Your task to perform on an android device: turn smart compose on in the gmail app Image 0: 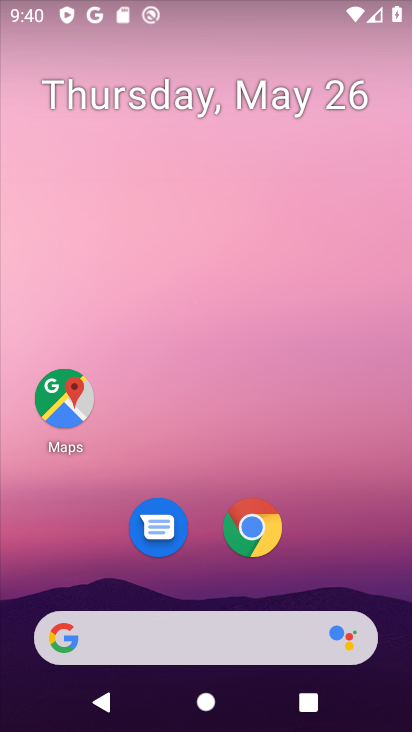
Step 0: drag from (352, 566) to (378, 82)
Your task to perform on an android device: turn smart compose on in the gmail app Image 1: 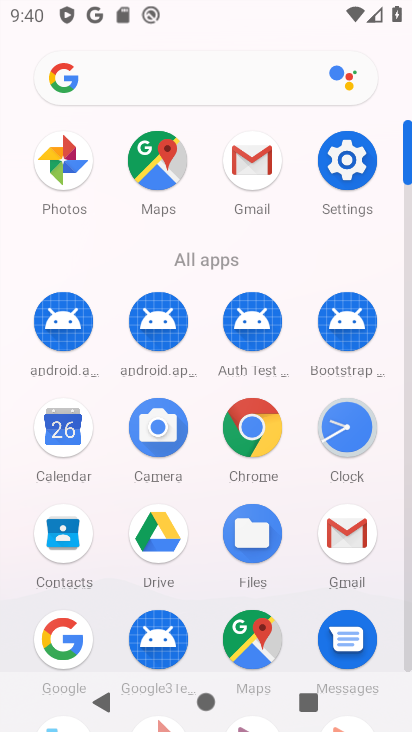
Step 1: click (238, 152)
Your task to perform on an android device: turn smart compose on in the gmail app Image 2: 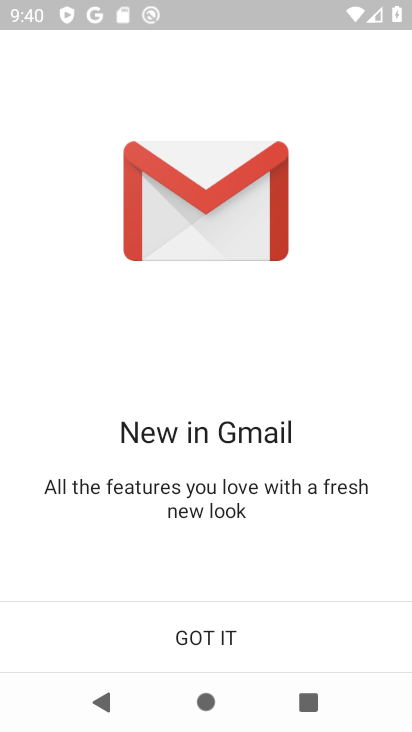
Step 2: click (237, 154)
Your task to perform on an android device: turn smart compose on in the gmail app Image 3: 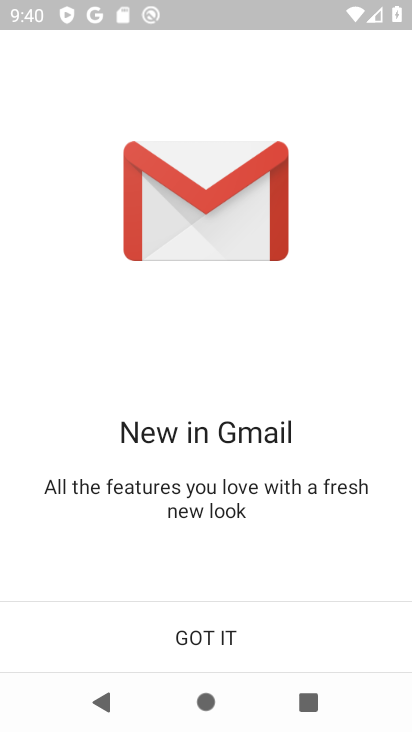
Step 3: click (263, 621)
Your task to perform on an android device: turn smart compose on in the gmail app Image 4: 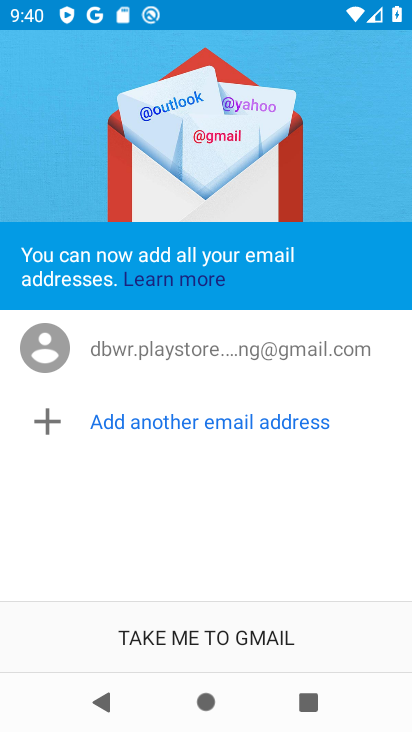
Step 4: click (263, 621)
Your task to perform on an android device: turn smart compose on in the gmail app Image 5: 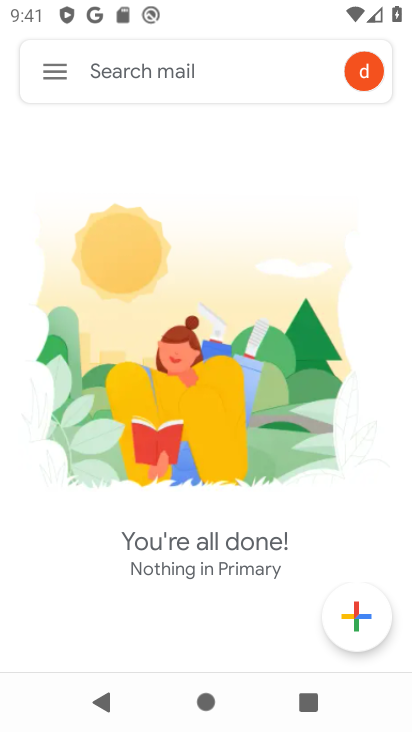
Step 5: click (258, 605)
Your task to perform on an android device: turn smart compose on in the gmail app Image 6: 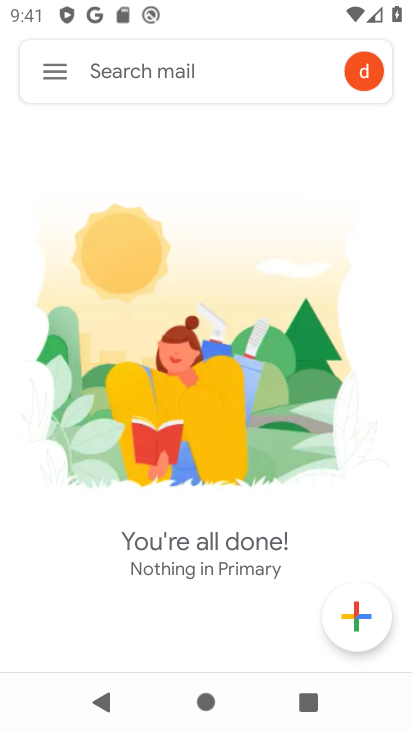
Step 6: drag from (258, 605) to (253, 420)
Your task to perform on an android device: turn smart compose on in the gmail app Image 7: 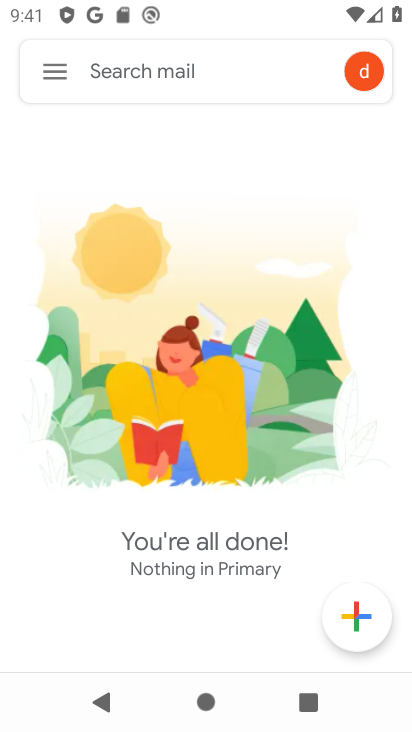
Step 7: click (55, 83)
Your task to perform on an android device: turn smart compose on in the gmail app Image 8: 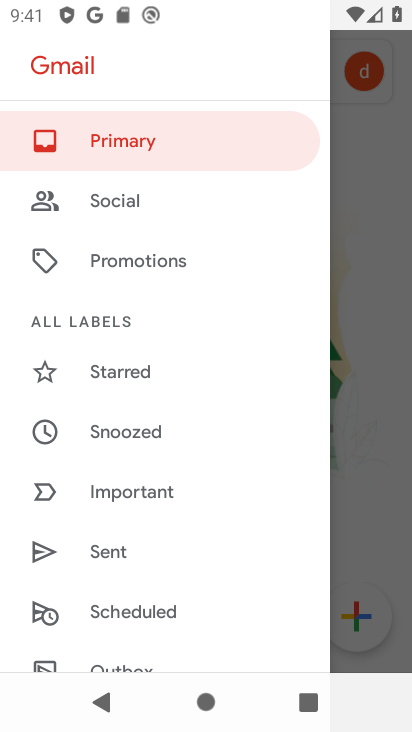
Step 8: drag from (196, 630) to (249, 133)
Your task to perform on an android device: turn smart compose on in the gmail app Image 9: 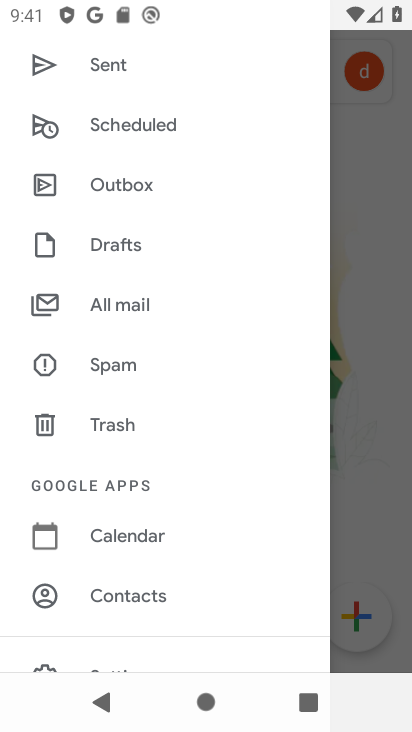
Step 9: drag from (174, 585) to (198, 336)
Your task to perform on an android device: turn smart compose on in the gmail app Image 10: 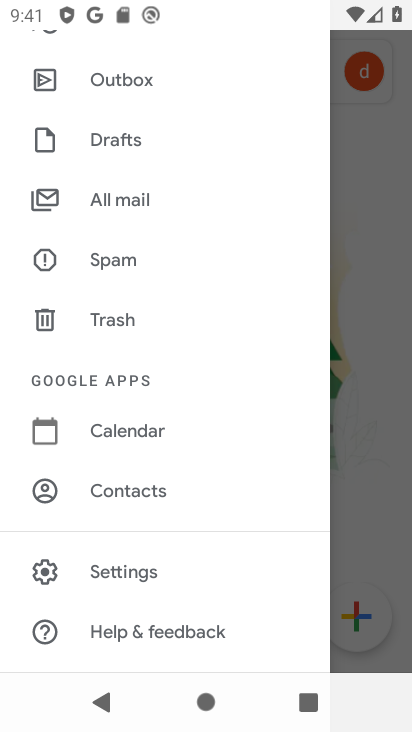
Step 10: click (171, 563)
Your task to perform on an android device: turn smart compose on in the gmail app Image 11: 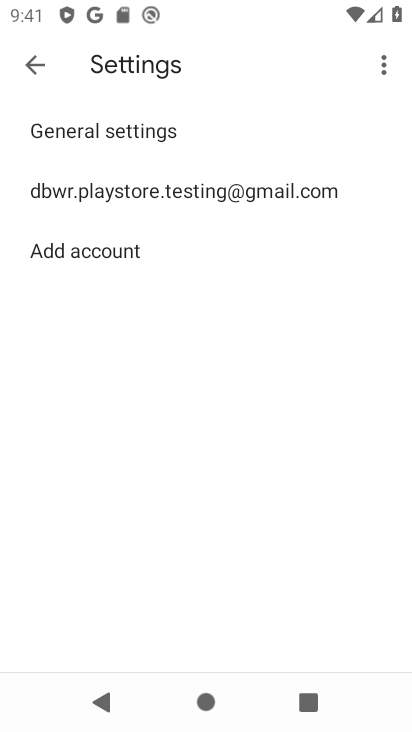
Step 11: click (118, 192)
Your task to perform on an android device: turn smart compose on in the gmail app Image 12: 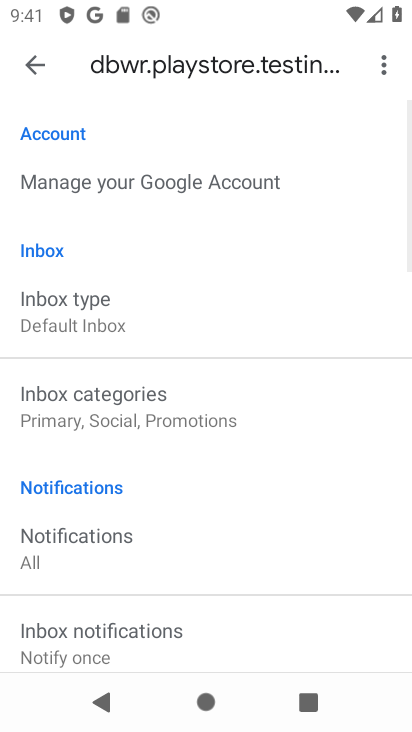
Step 12: task complete